Your task to perform on an android device: Open calendar and show me the third week of next month Image 0: 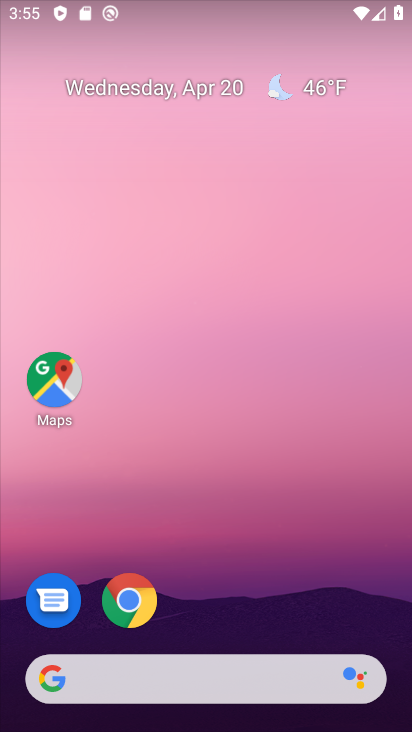
Step 0: drag from (220, 554) to (264, 59)
Your task to perform on an android device: Open calendar and show me the third week of next month Image 1: 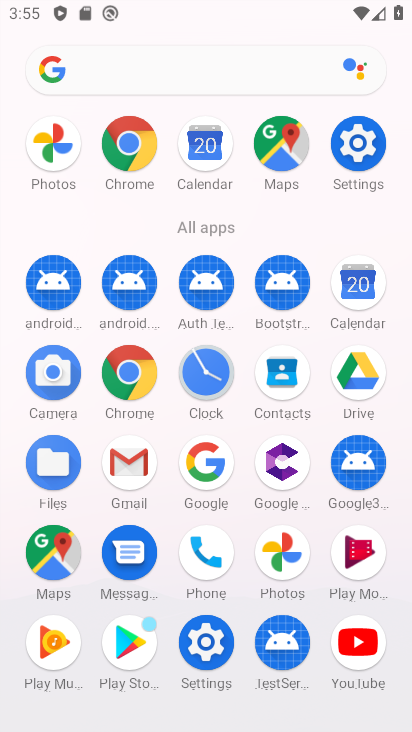
Step 1: click (352, 280)
Your task to perform on an android device: Open calendar and show me the third week of next month Image 2: 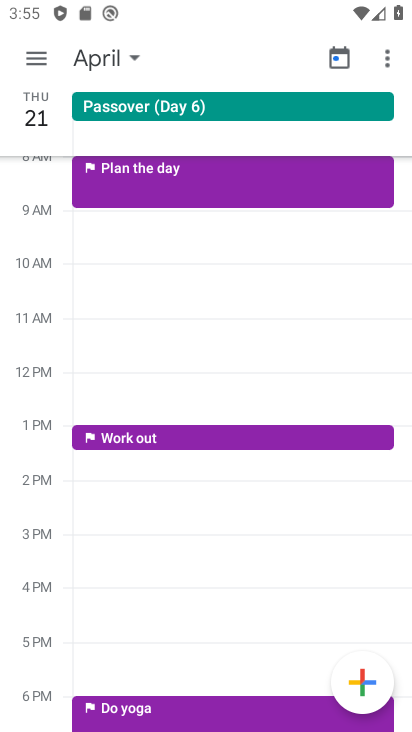
Step 2: click (126, 50)
Your task to perform on an android device: Open calendar and show me the third week of next month Image 3: 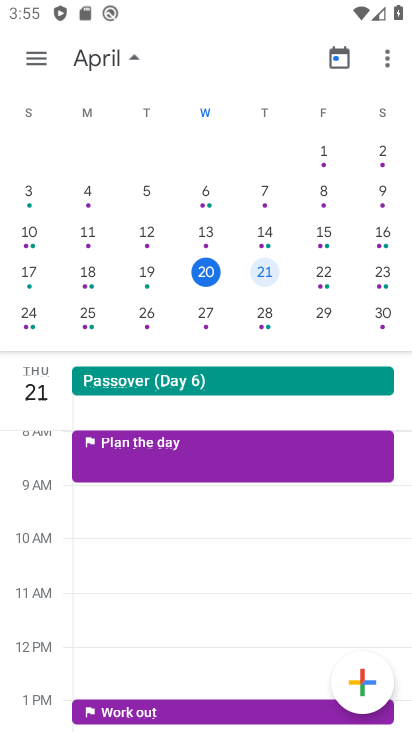
Step 3: drag from (354, 254) to (0, 233)
Your task to perform on an android device: Open calendar and show me the third week of next month Image 4: 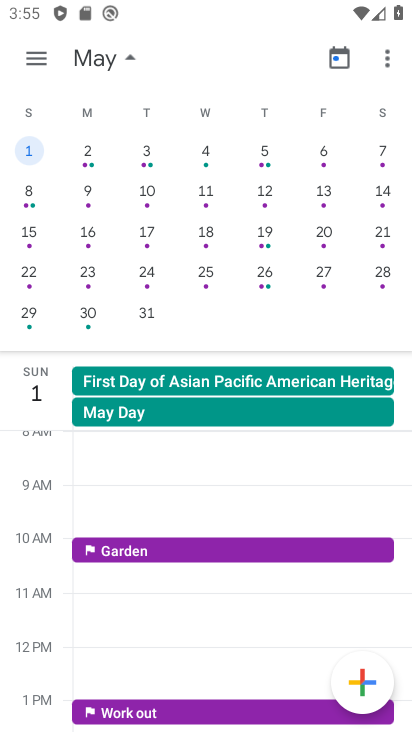
Step 4: click (37, 233)
Your task to perform on an android device: Open calendar and show me the third week of next month Image 5: 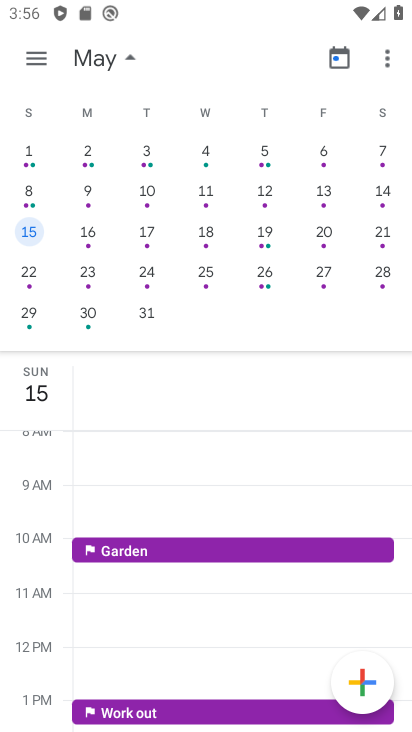
Step 5: task complete